Your task to perform on an android device: Go to eBay Image 0: 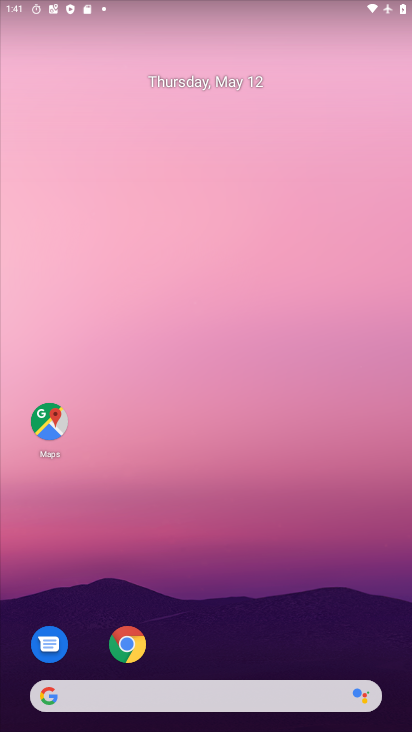
Step 0: click (130, 645)
Your task to perform on an android device: Go to eBay Image 1: 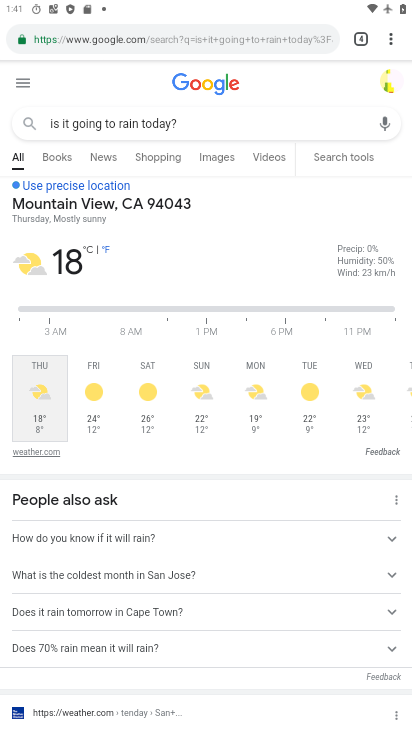
Step 1: click (360, 36)
Your task to perform on an android device: Go to eBay Image 2: 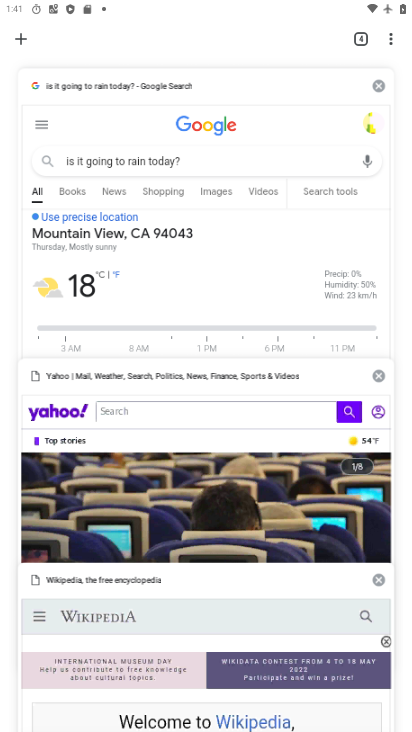
Step 2: click (20, 31)
Your task to perform on an android device: Go to eBay Image 3: 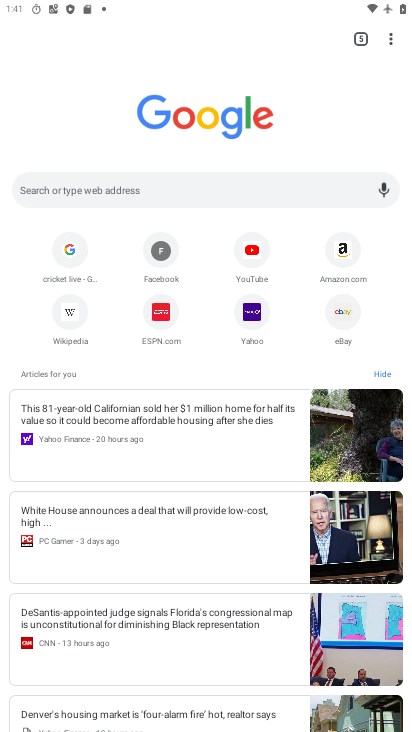
Step 3: click (349, 315)
Your task to perform on an android device: Go to eBay Image 4: 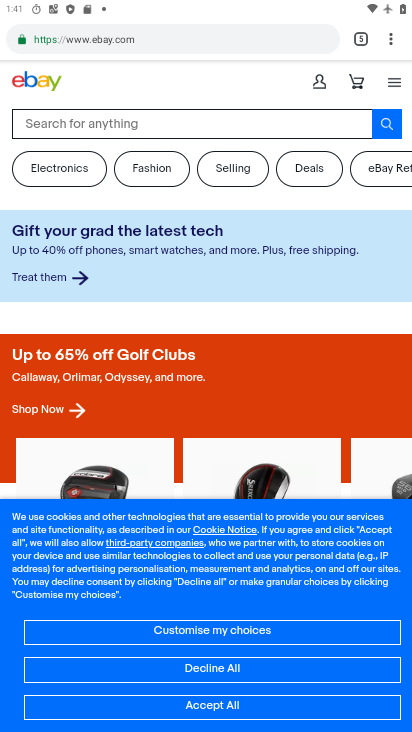
Step 4: task complete